Your task to perform on an android device: toggle wifi Image 0: 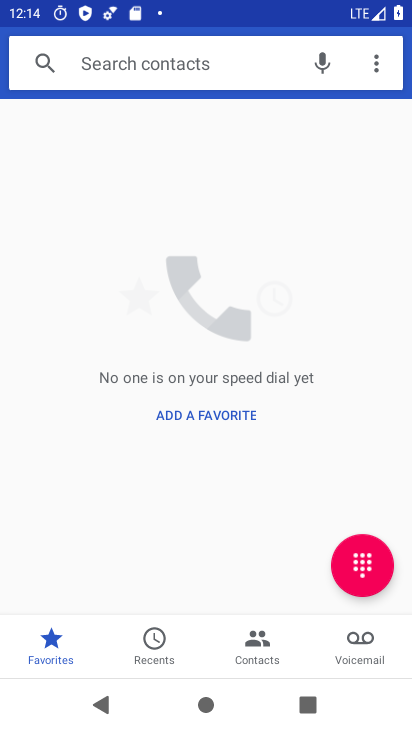
Step 0: drag from (226, 20) to (162, 561)
Your task to perform on an android device: toggle wifi Image 1: 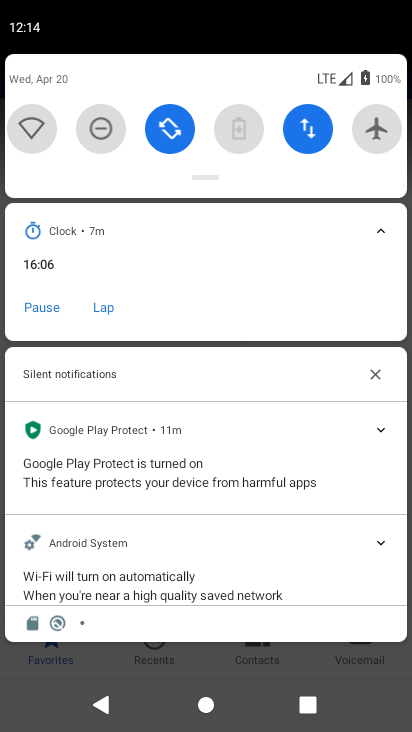
Step 1: click (49, 132)
Your task to perform on an android device: toggle wifi Image 2: 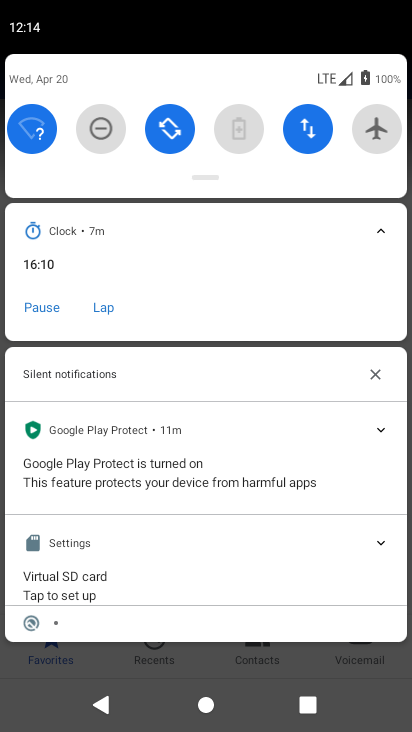
Step 2: click (49, 132)
Your task to perform on an android device: toggle wifi Image 3: 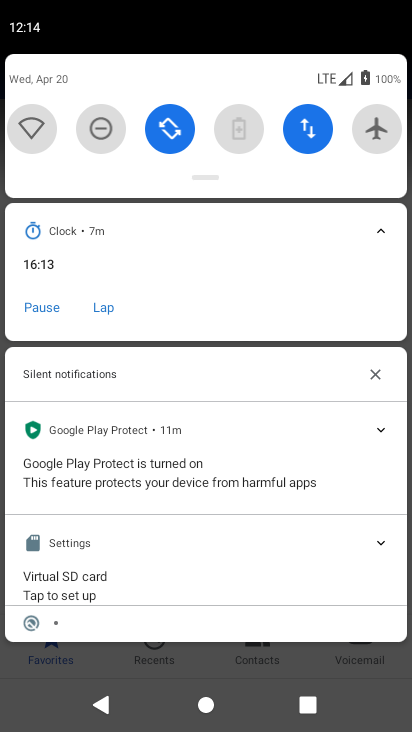
Step 3: click (49, 132)
Your task to perform on an android device: toggle wifi Image 4: 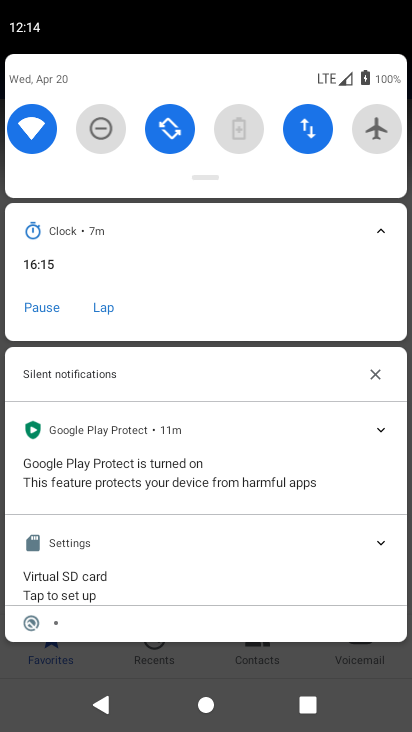
Step 4: task complete